Your task to perform on an android device: Open battery settings Image 0: 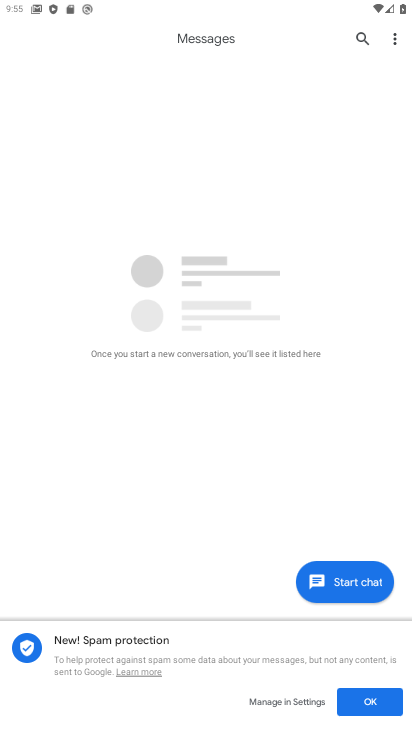
Step 0: press home button
Your task to perform on an android device: Open battery settings Image 1: 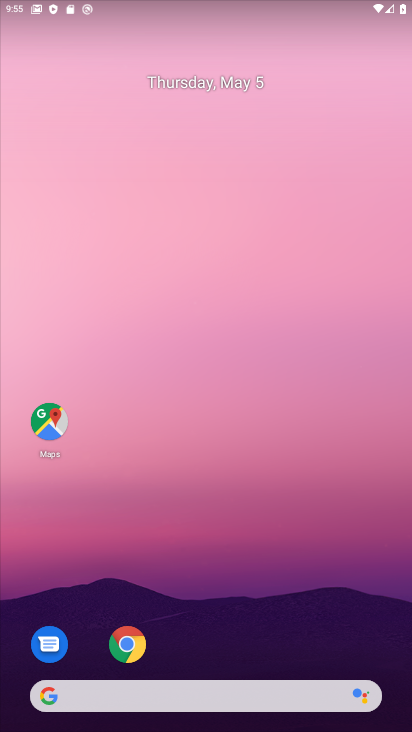
Step 1: drag from (207, 664) to (208, 338)
Your task to perform on an android device: Open battery settings Image 2: 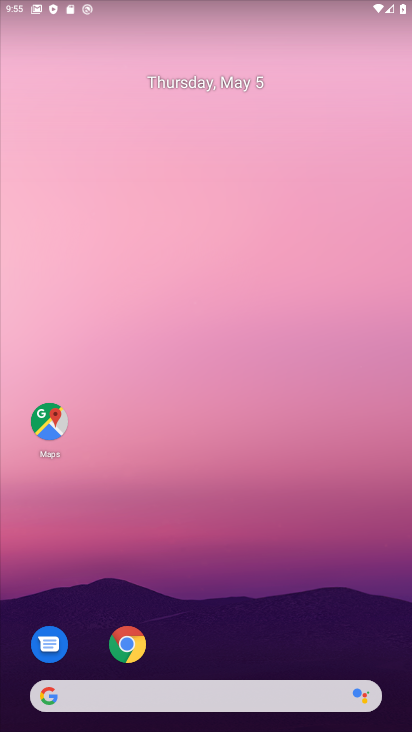
Step 2: drag from (203, 659) to (120, 147)
Your task to perform on an android device: Open battery settings Image 3: 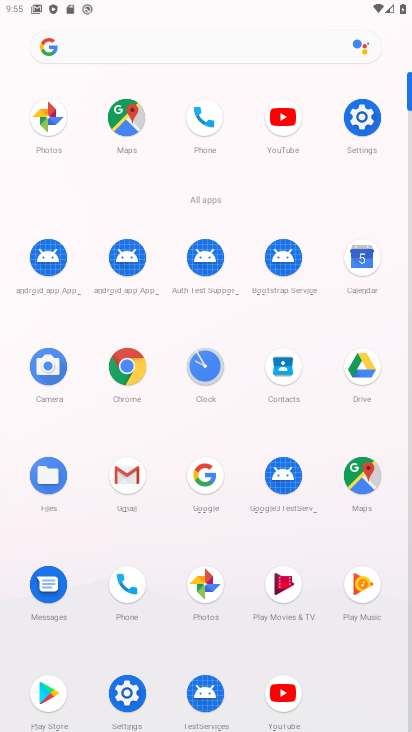
Step 3: click (362, 114)
Your task to perform on an android device: Open battery settings Image 4: 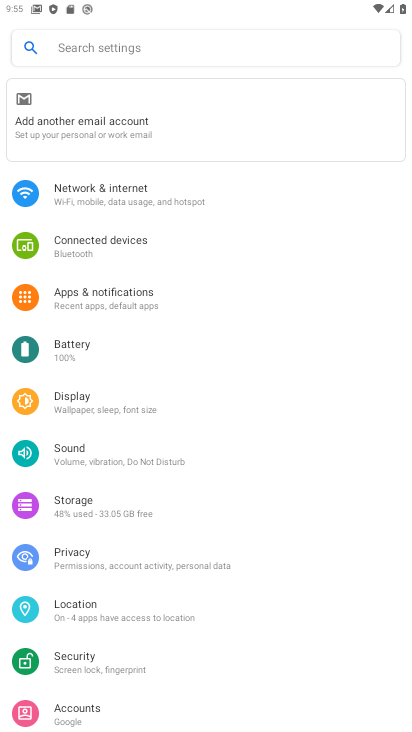
Step 4: click (53, 348)
Your task to perform on an android device: Open battery settings Image 5: 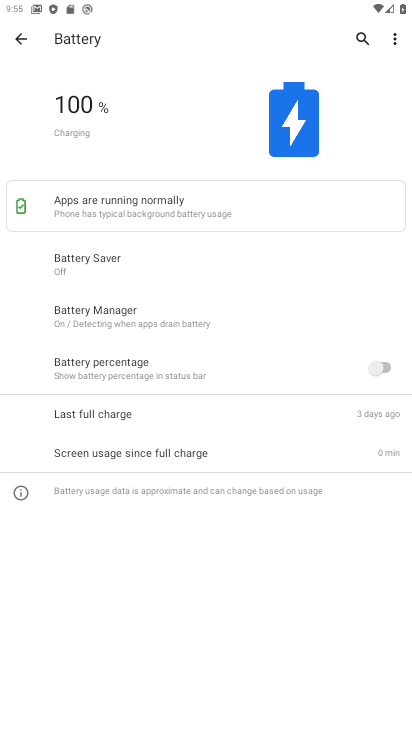
Step 5: task complete